Your task to perform on an android device: change the clock style Image 0: 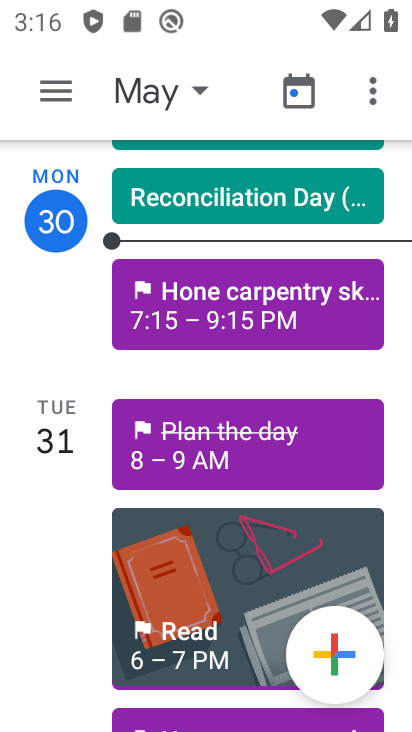
Step 0: press home button
Your task to perform on an android device: change the clock style Image 1: 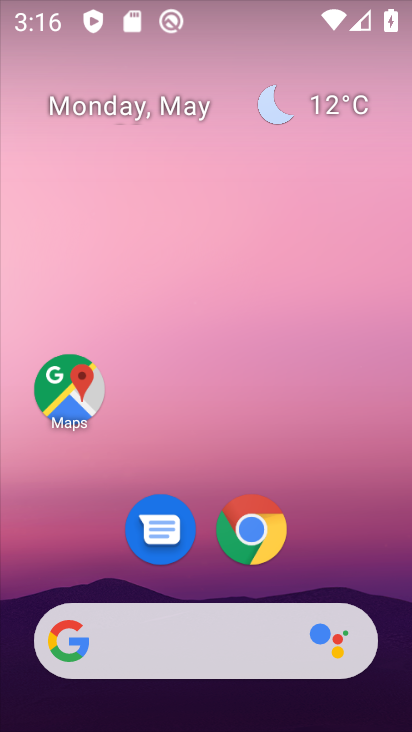
Step 1: drag from (320, 450) to (325, 51)
Your task to perform on an android device: change the clock style Image 2: 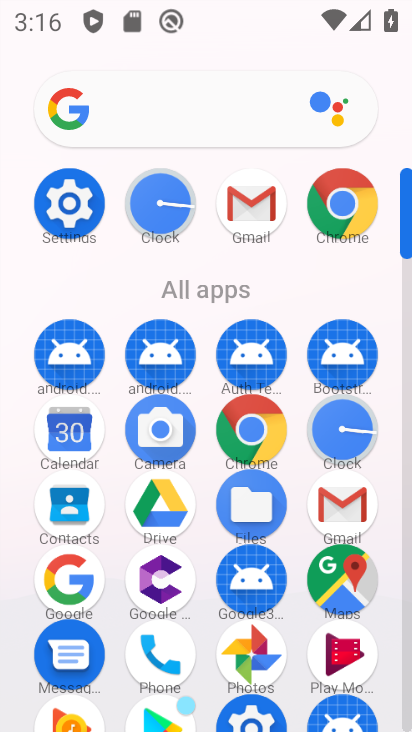
Step 2: click (167, 196)
Your task to perform on an android device: change the clock style Image 3: 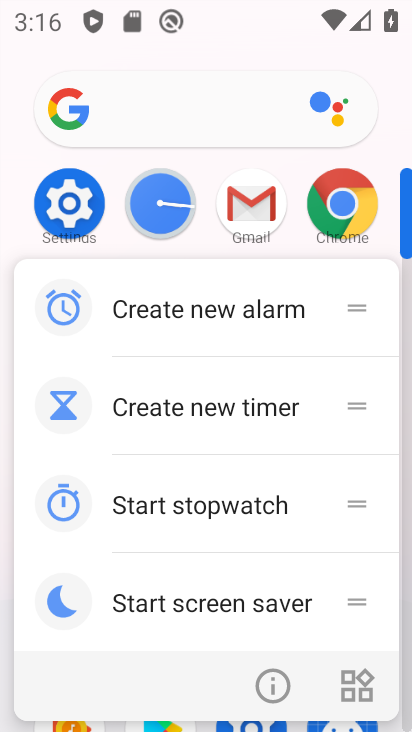
Step 3: click (160, 220)
Your task to perform on an android device: change the clock style Image 4: 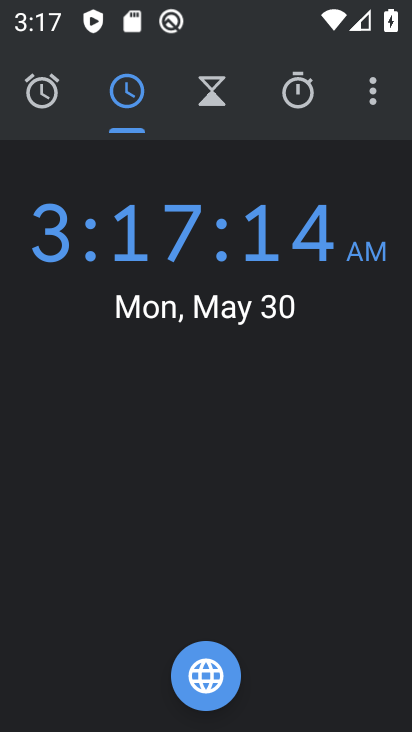
Step 4: click (373, 83)
Your task to perform on an android device: change the clock style Image 5: 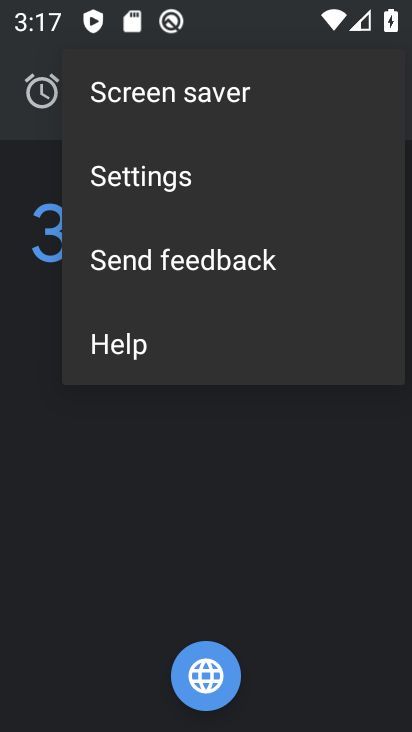
Step 5: click (127, 179)
Your task to perform on an android device: change the clock style Image 6: 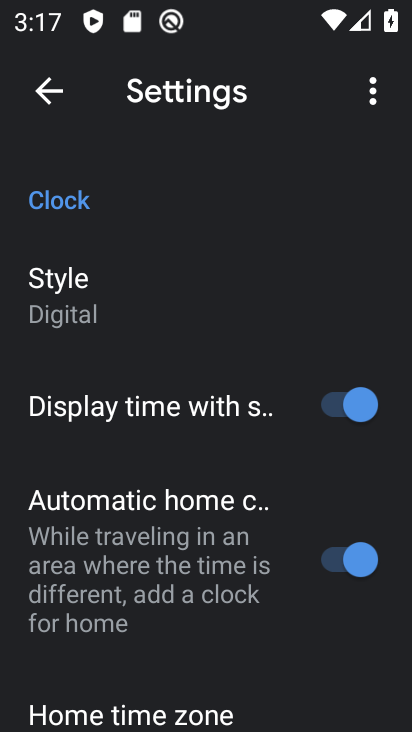
Step 6: click (85, 281)
Your task to perform on an android device: change the clock style Image 7: 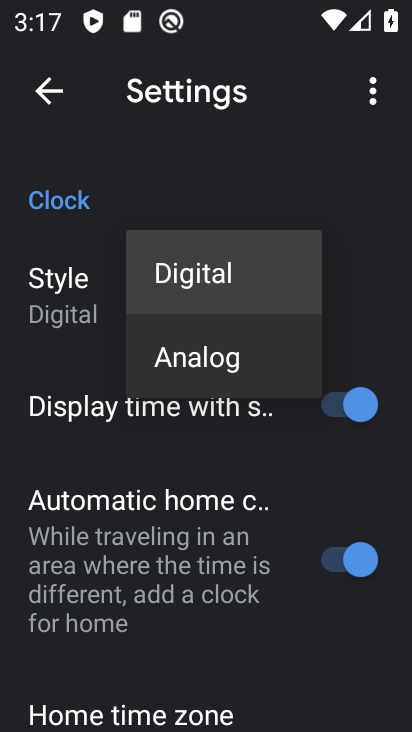
Step 7: click (197, 343)
Your task to perform on an android device: change the clock style Image 8: 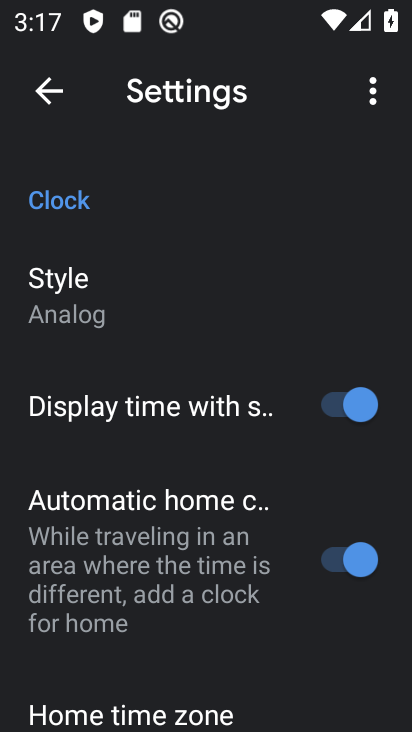
Step 8: task complete